Your task to perform on an android device: Open Youtube and go to "Your channel" Image 0: 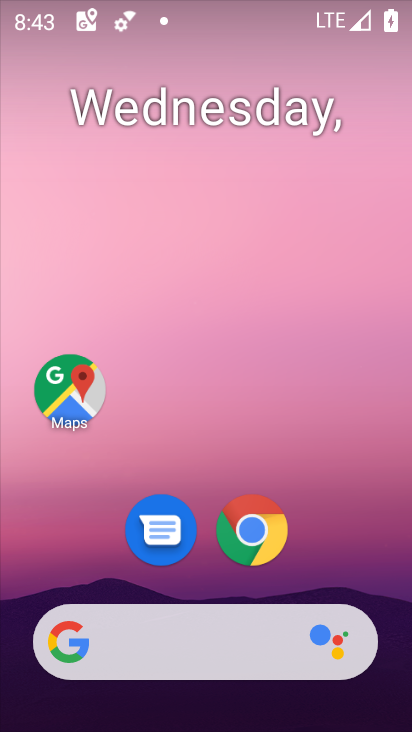
Step 0: drag from (396, 598) to (288, 63)
Your task to perform on an android device: Open Youtube and go to "Your channel" Image 1: 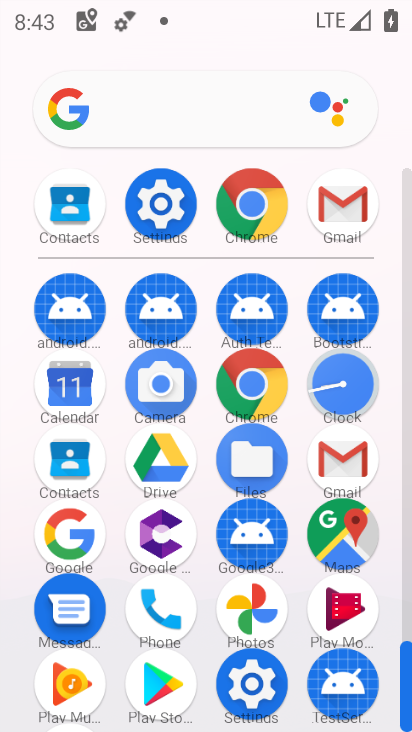
Step 1: drag from (213, 654) to (181, 371)
Your task to perform on an android device: Open Youtube and go to "Your channel" Image 2: 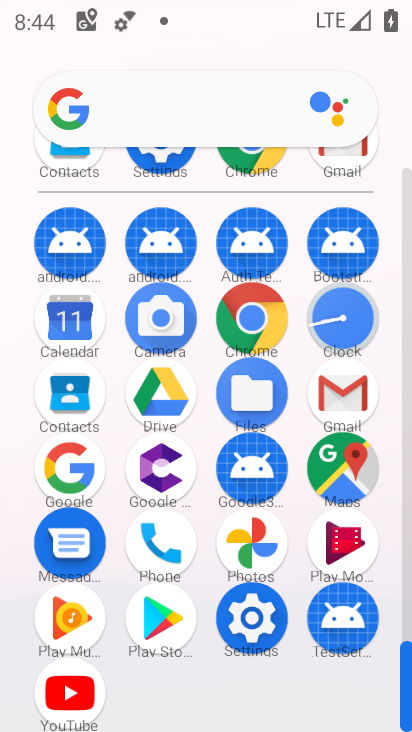
Step 2: click (75, 697)
Your task to perform on an android device: Open Youtube and go to "Your channel" Image 3: 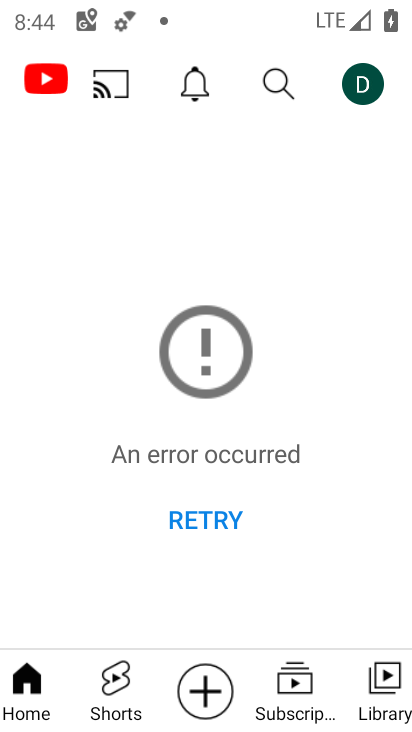
Step 3: click (227, 524)
Your task to perform on an android device: Open Youtube and go to "Your channel" Image 4: 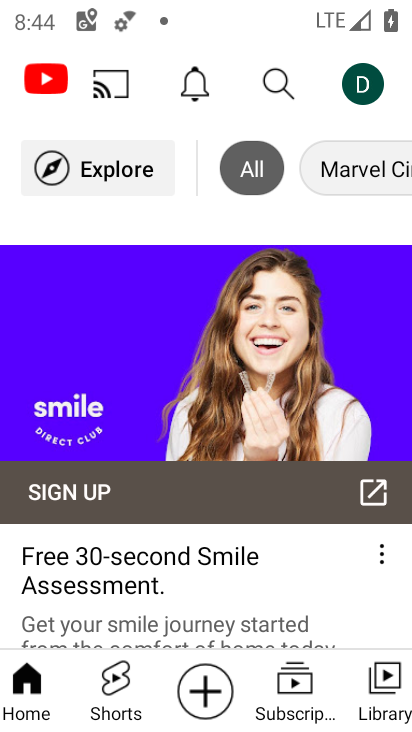
Step 4: click (367, 76)
Your task to perform on an android device: Open Youtube and go to "Your channel" Image 5: 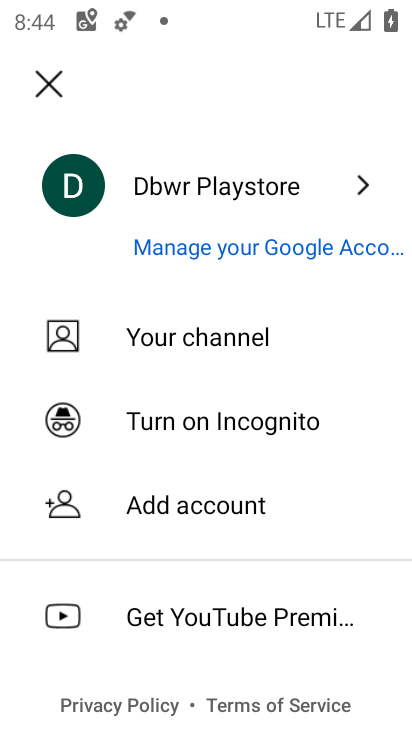
Step 5: click (213, 195)
Your task to perform on an android device: Open Youtube and go to "Your channel" Image 6: 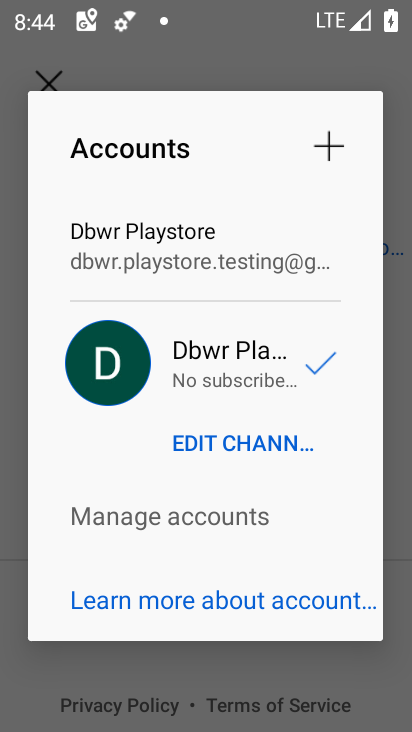
Step 6: press back button
Your task to perform on an android device: Open Youtube and go to "Your channel" Image 7: 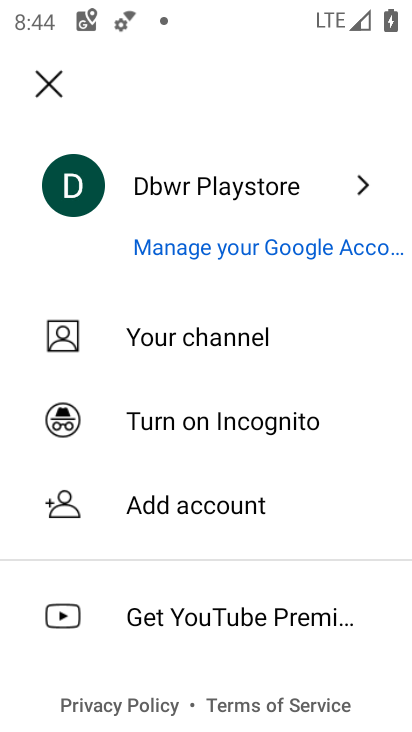
Step 7: click (210, 339)
Your task to perform on an android device: Open Youtube and go to "Your channel" Image 8: 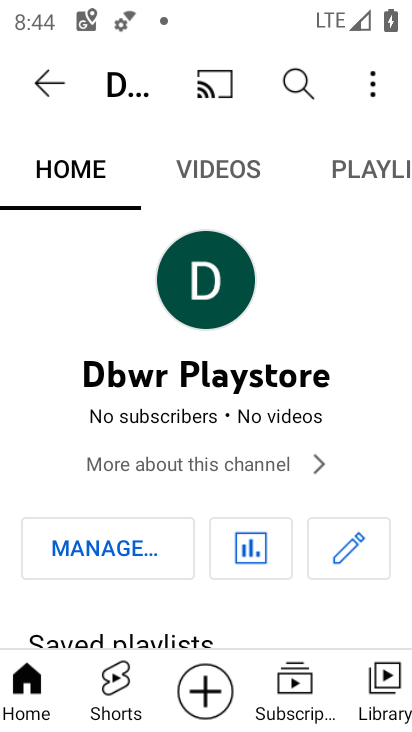
Step 8: task complete